Your task to perform on an android device: open chrome and create a bookmark for the current page Image 0: 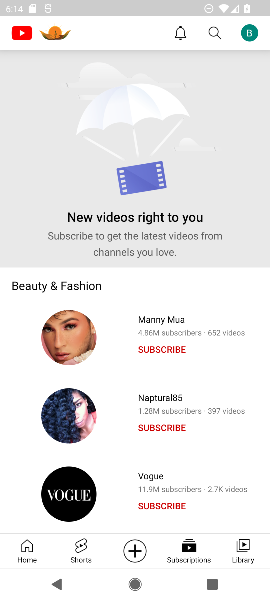
Step 0: press home button
Your task to perform on an android device: open chrome and create a bookmark for the current page Image 1: 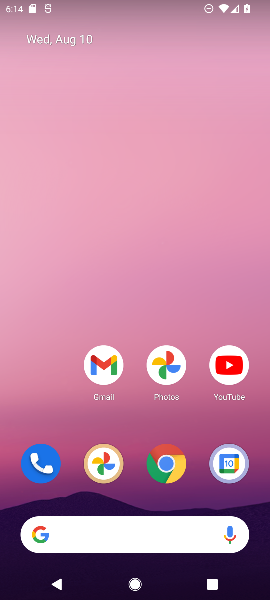
Step 1: click (168, 461)
Your task to perform on an android device: open chrome and create a bookmark for the current page Image 2: 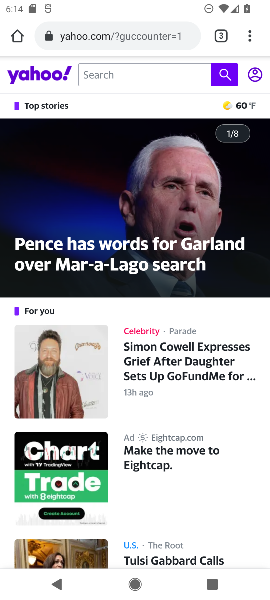
Step 2: click (248, 37)
Your task to perform on an android device: open chrome and create a bookmark for the current page Image 3: 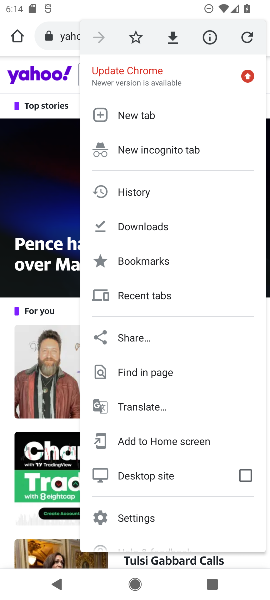
Step 3: click (135, 38)
Your task to perform on an android device: open chrome and create a bookmark for the current page Image 4: 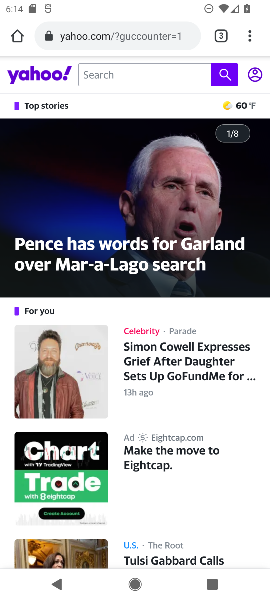
Step 4: task complete